Your task to perform on an android device: turn on wifi Image 0: 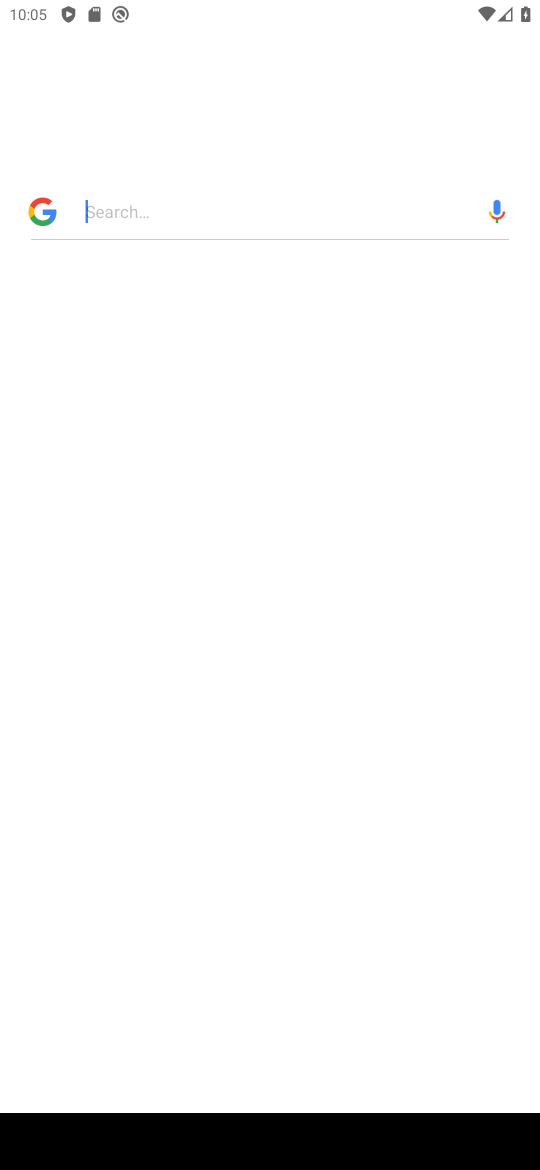
Step 0: press home button
Your task to perform on an android device: turn on wifi Image 1: 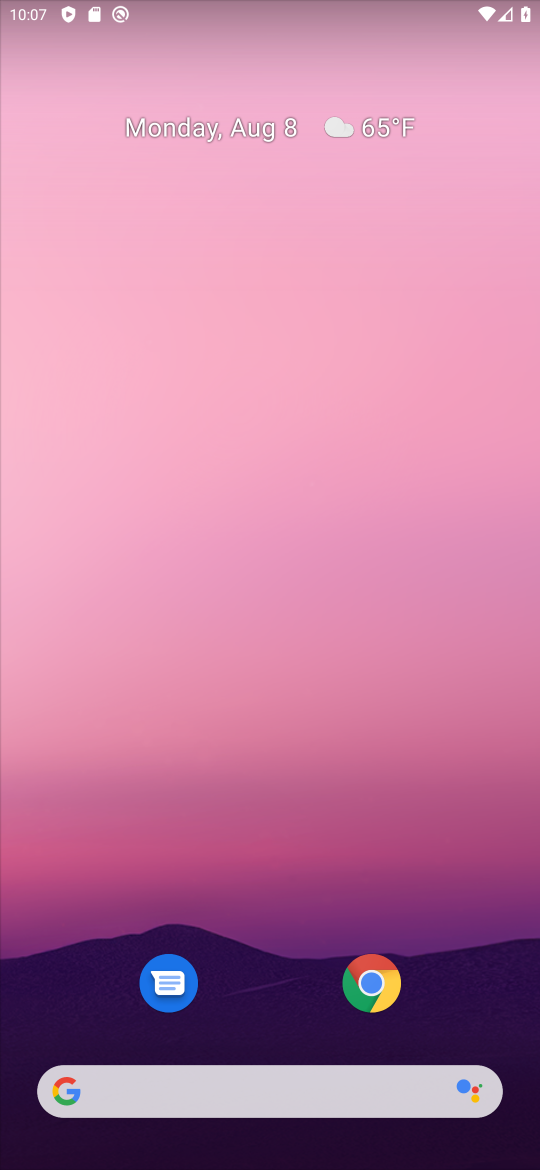
Step 1: task complete